Your task to perform on an android device: Go to internet settings Image 0: 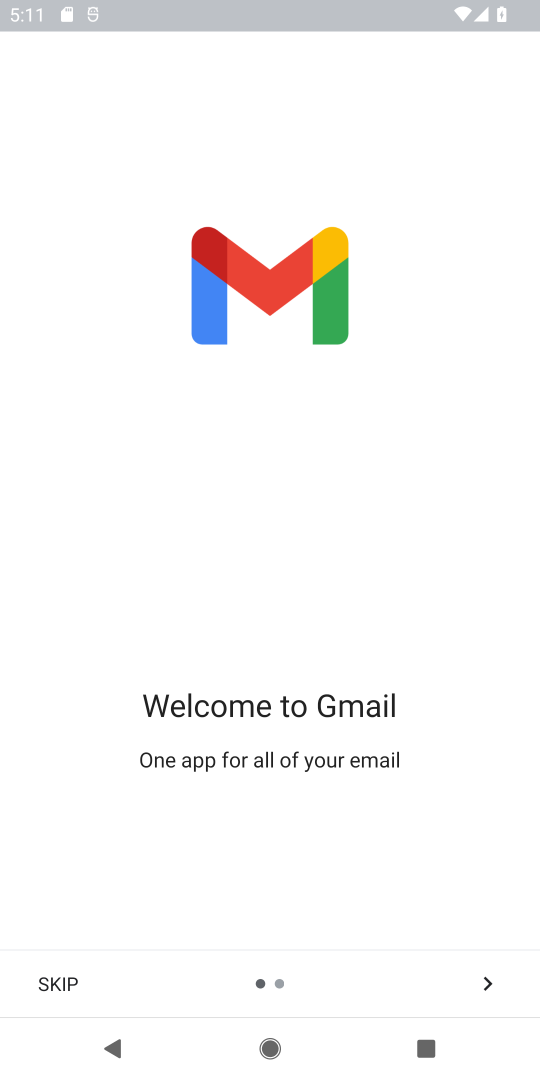
Step 0: click (503, 988)
Your task to perform on an android device: Go to internet settings Image 1: 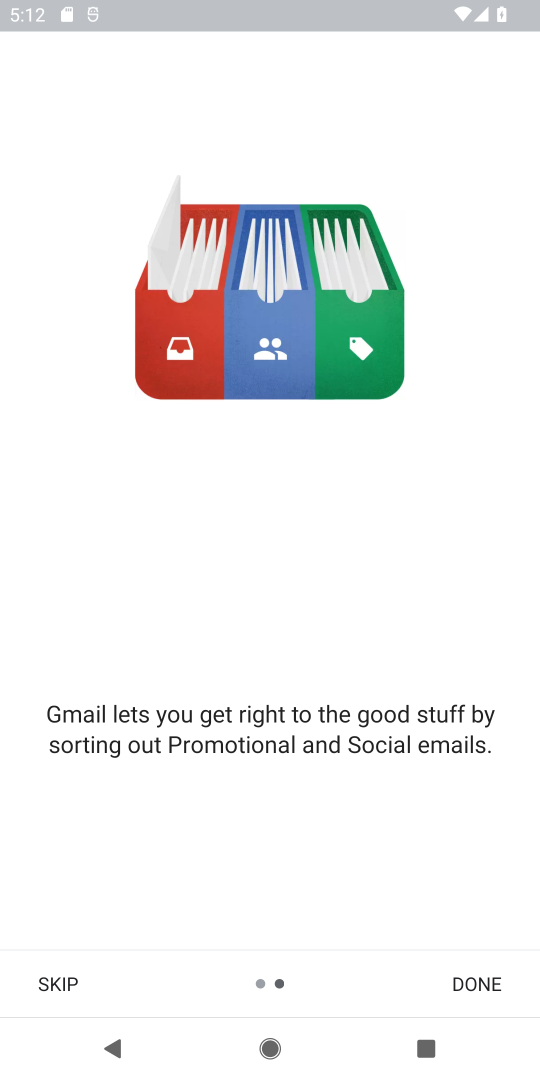
Step 1: click (467, 977)
Your task to perform on an android device: Go to internet settings Image 2: 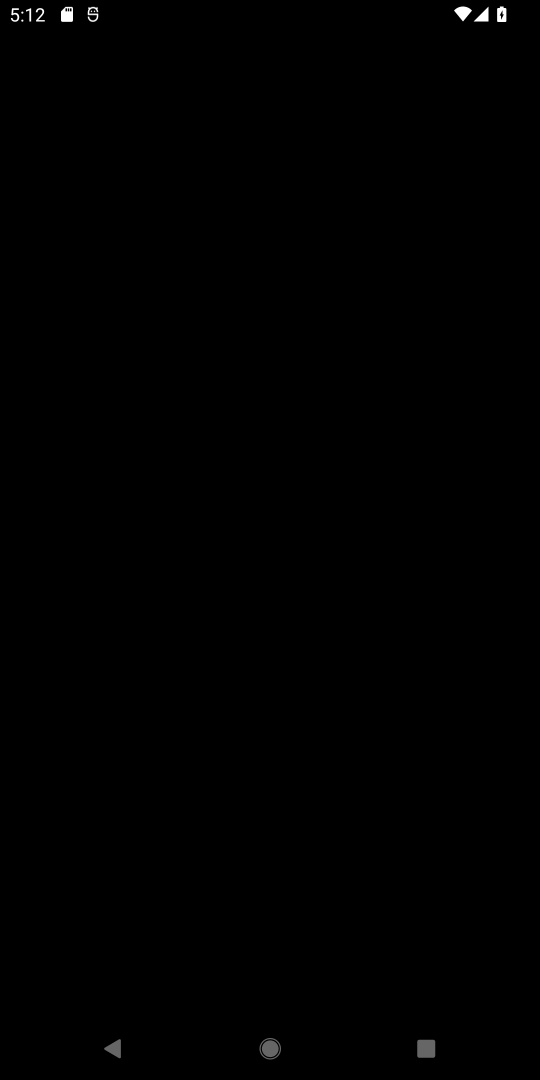
Step 2: click (474, 968)
Your task to perform on an android device: Go to internet settings Image 3: 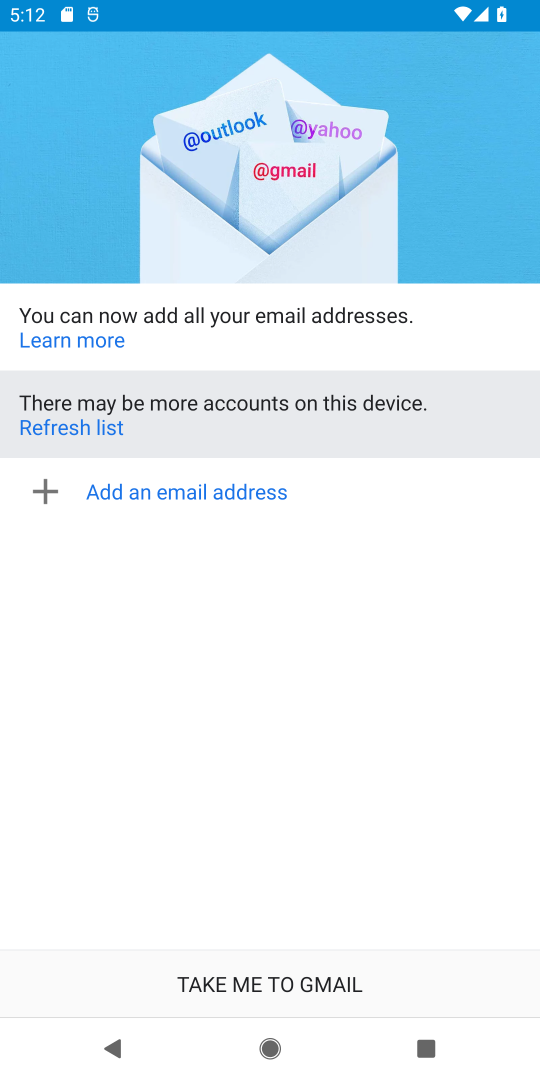
Step 3: task complete